Your task to perform on an android device: turn on location history Image 0: 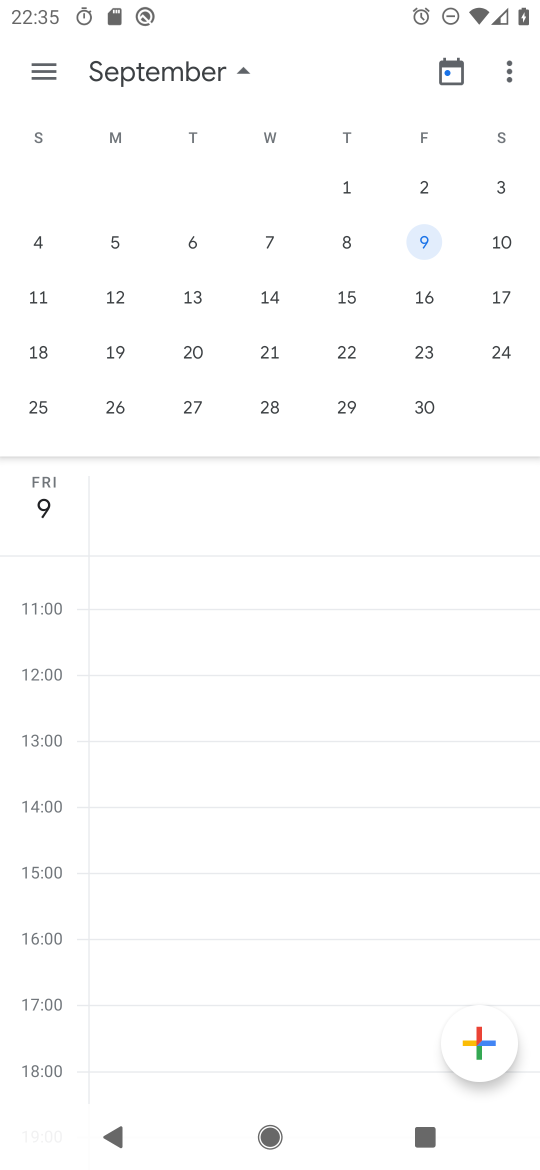
Step 0: press home button
Your task to perform on an android device: turn on location history Image 1: 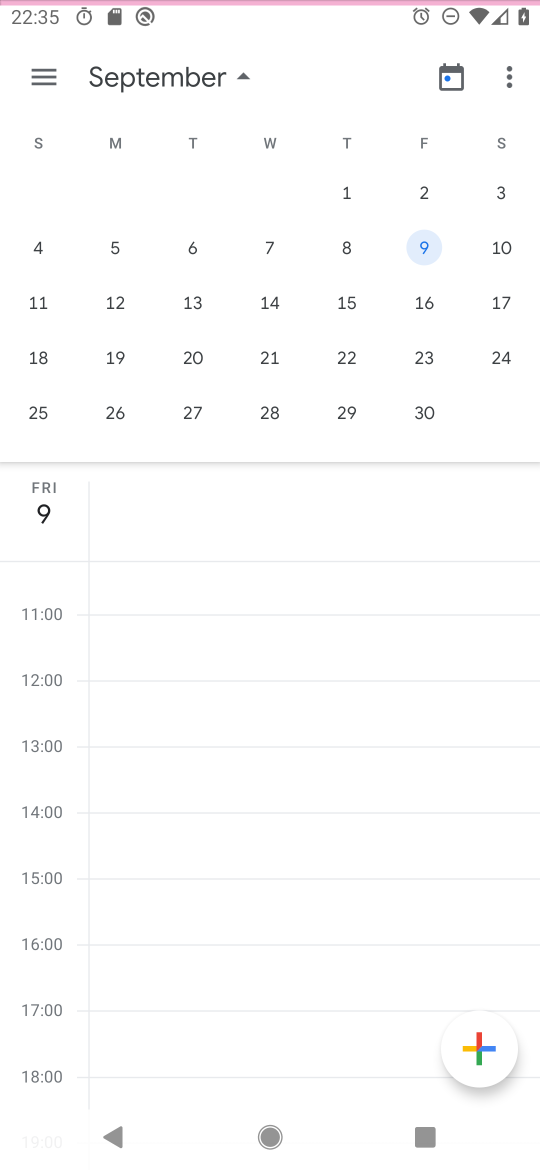
Step 1: drag from (238, 990) to (350, 197)
Your task to perform on an android device: turn on location history Image 2: 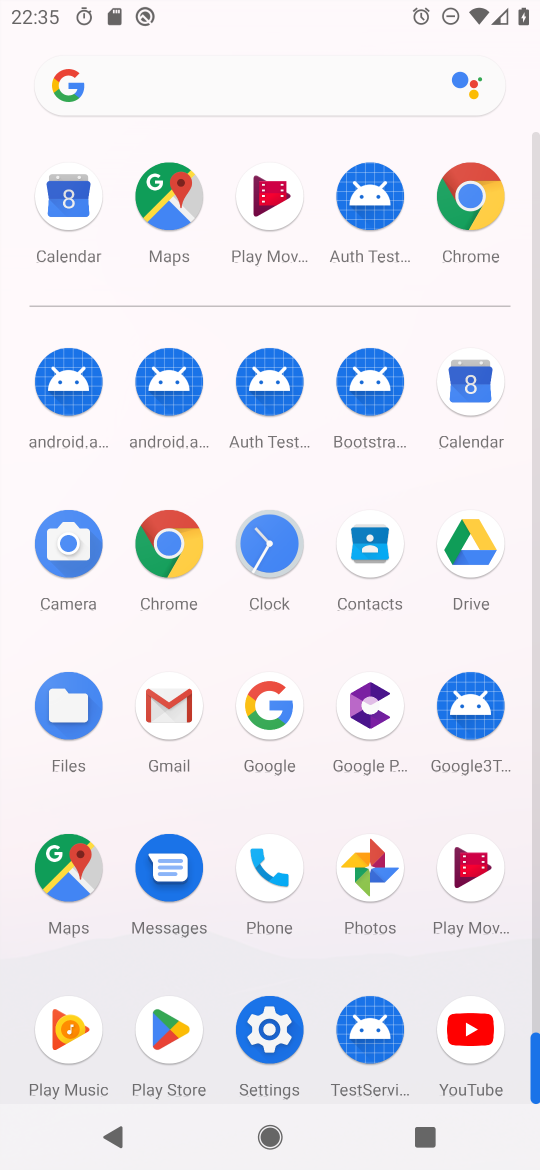
Step 2: click (267, 1017)
Your task to perform on an android device: turn on location history Image 3: 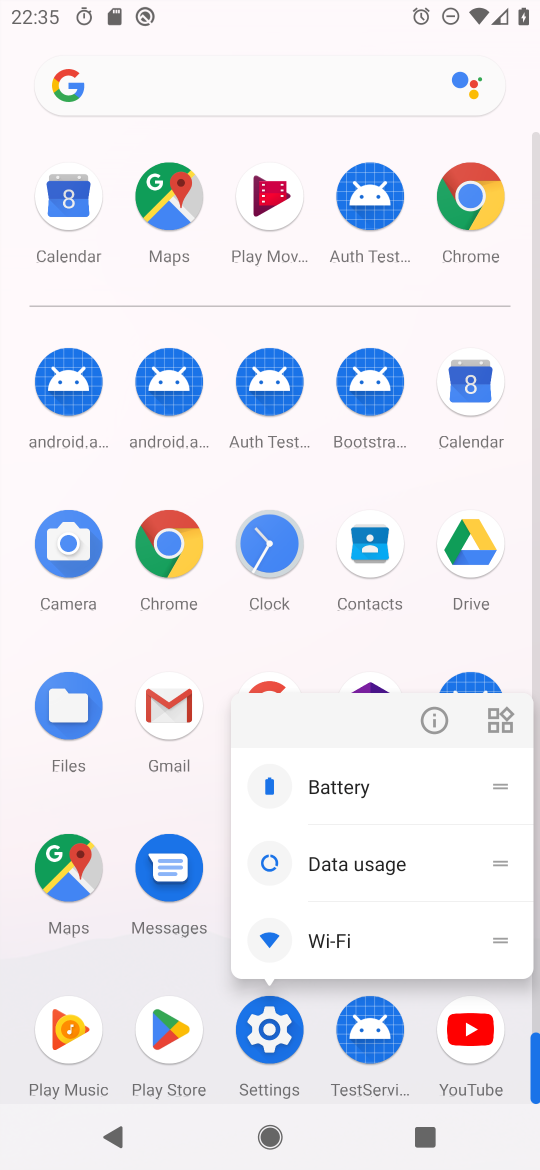
Step 3: click (436, 716)
Your task to perform on an android device: turn on location history Image 4: 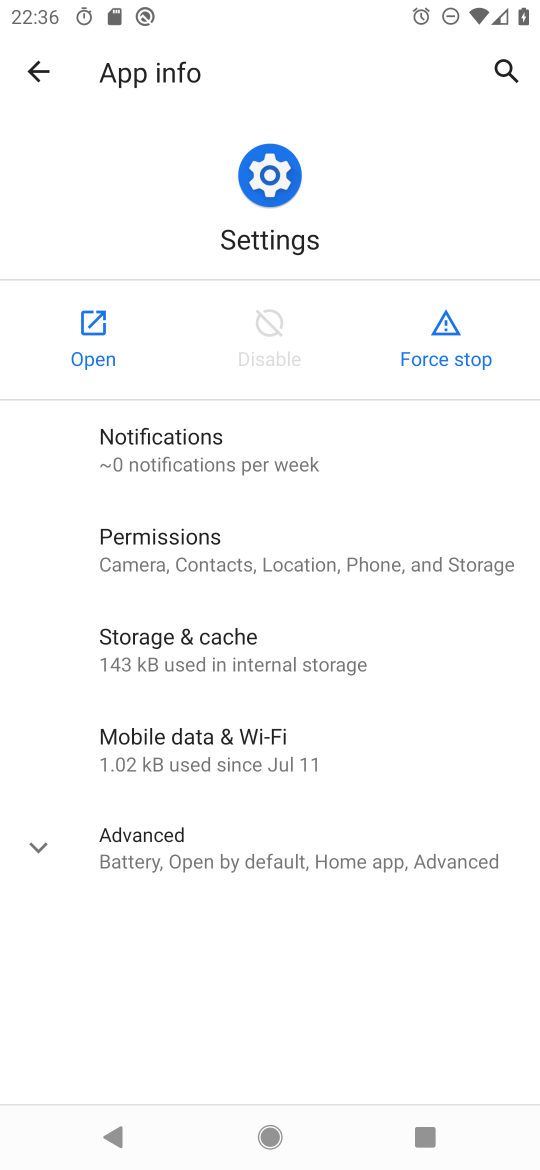
Step 4: click (92, 321)
Your task to perform on an android device: turn on location history Image 5: 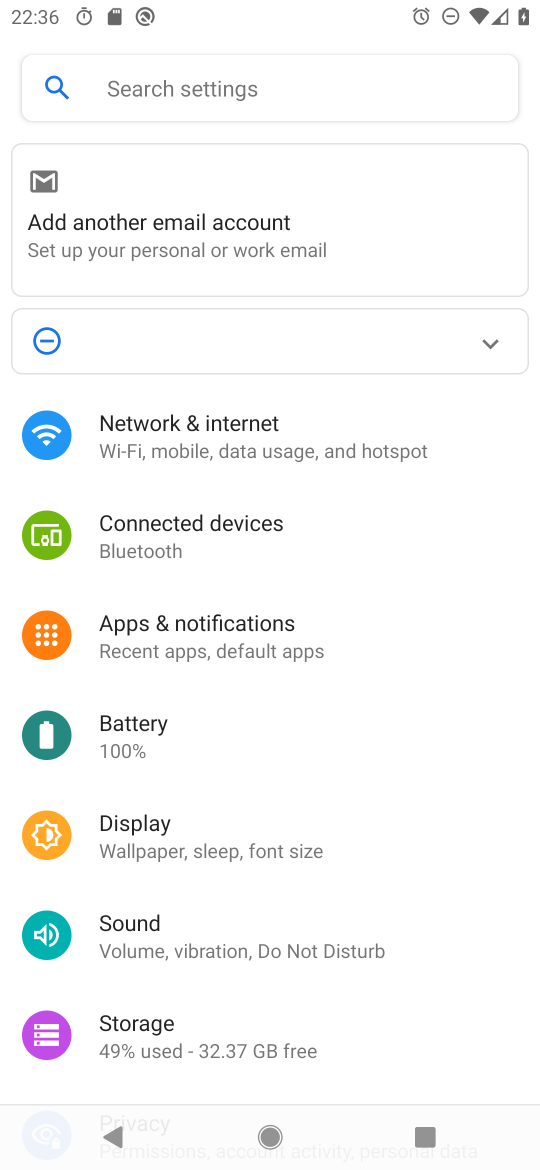
Step 5: drag from (234, 948) to (228, 479)
Your task to perform on an android device: turn on location history Image 6: 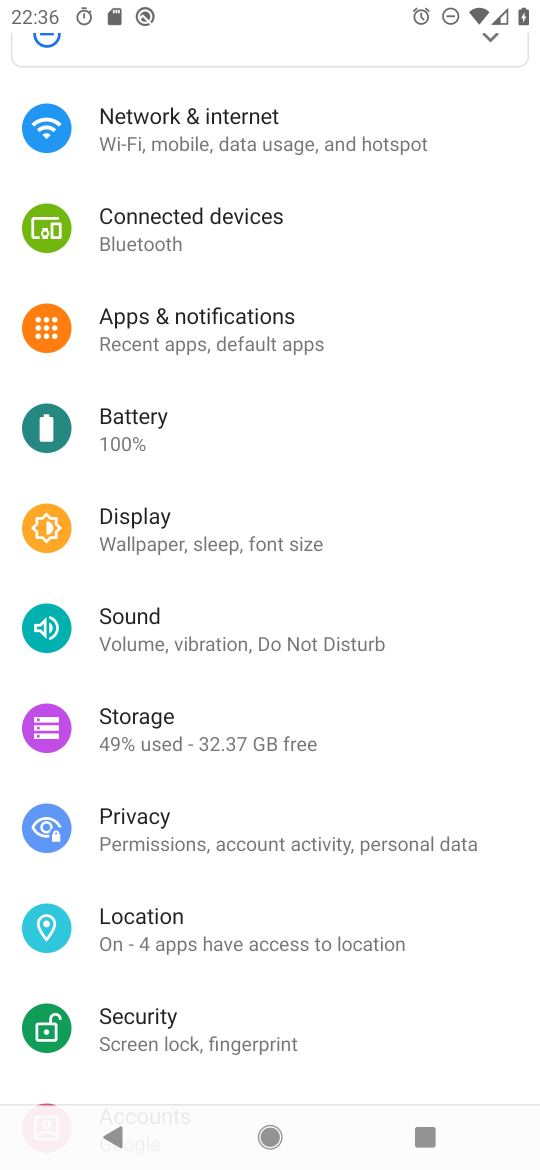
Step 6: click (165, 916)
Your task to perform on an android device: turn on location history Image 7: 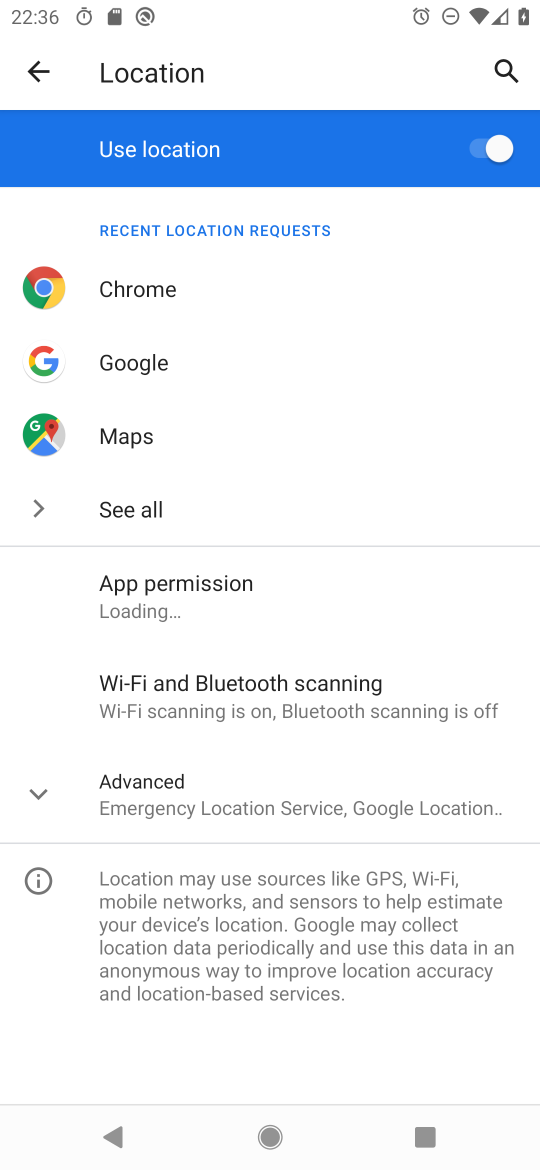
Step 7: click (137, 791)
Your task to perform on an android device: turn on location history Image 8: 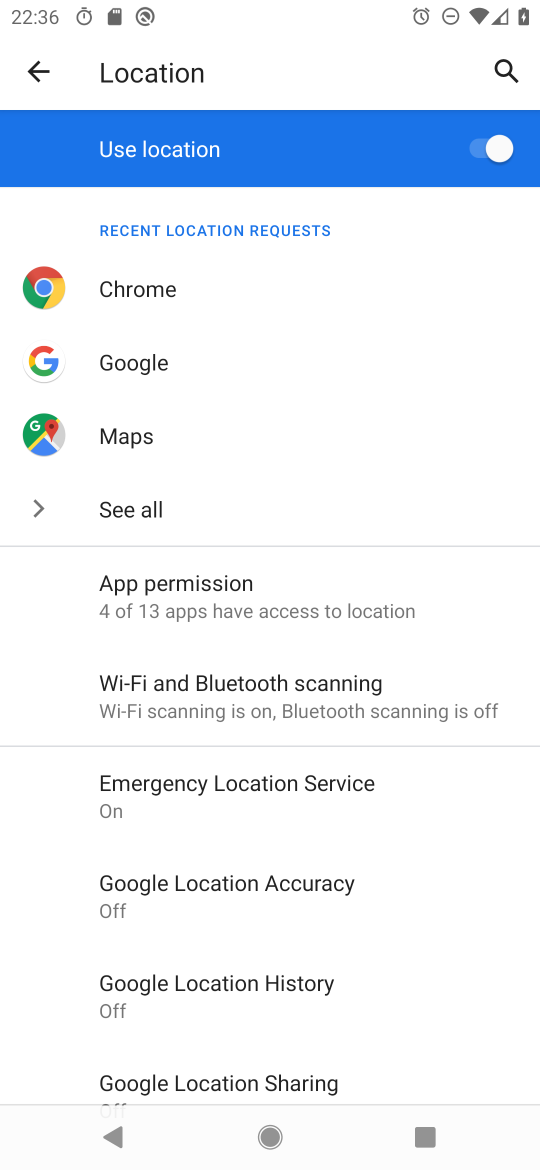
Step 8: click (205, 992)
Your task to perform on an android device: turn on location history Image 9: 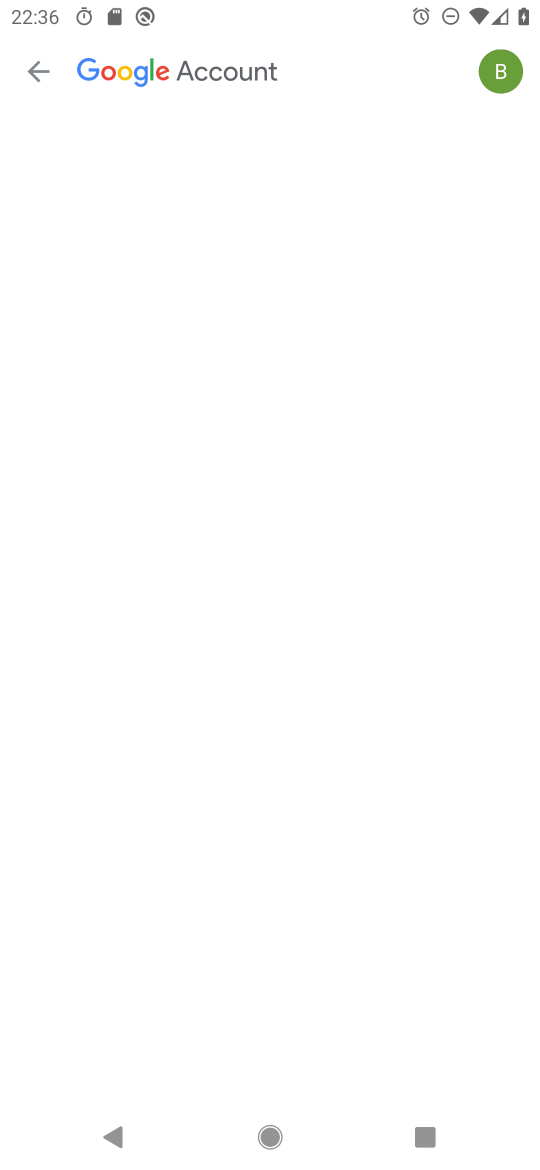
Step 9: drag from (308, 945) to (314, 596)
Your task to perform on an android device: turn on location history Image 10: 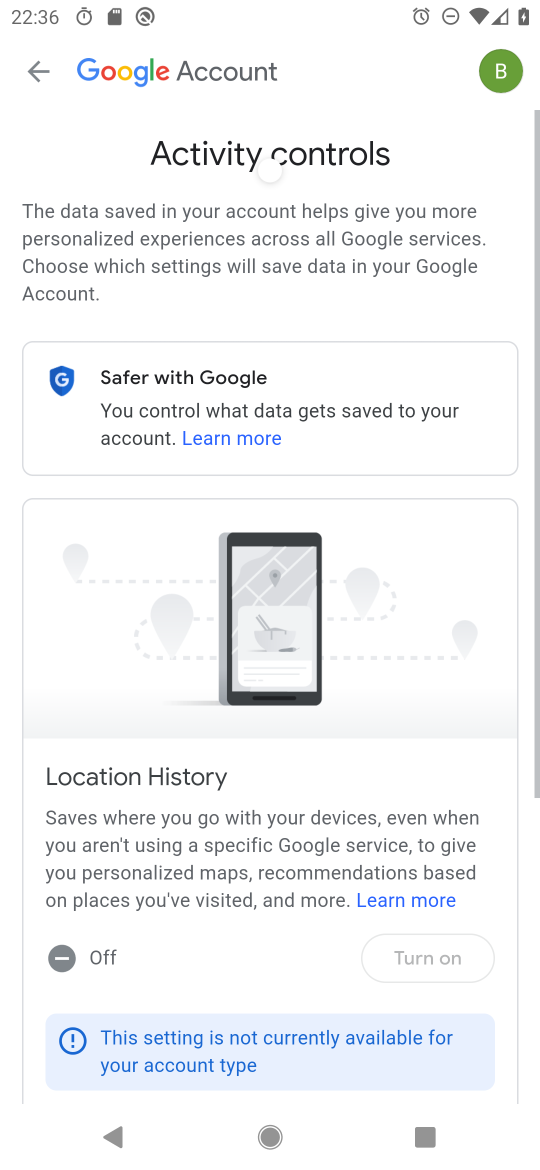
Step 10: click (307, 553)
Your task to perform on an android device: turn on location history Image 11: 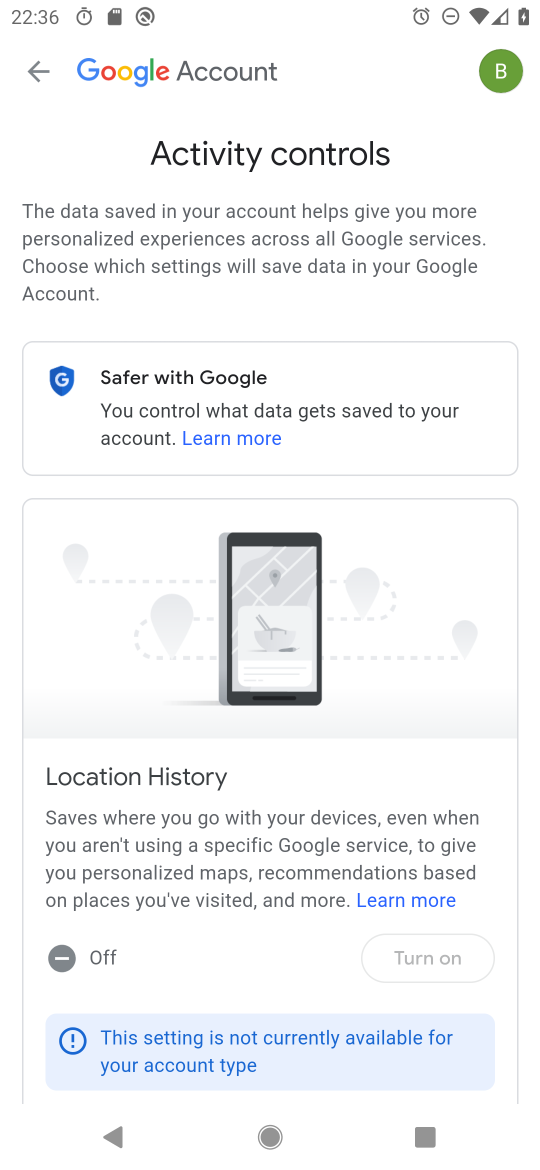
Step 11: task complete